Your task to perform on an android device: Open the map Image 0: 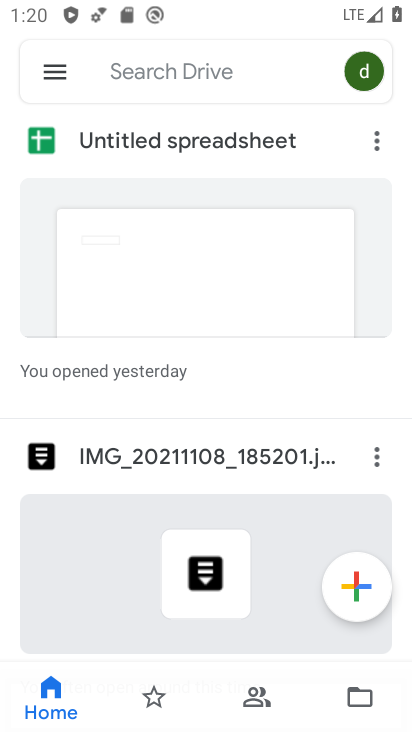
Step 0: press home button
Your task to perform on an android device: Open the map Image 1: 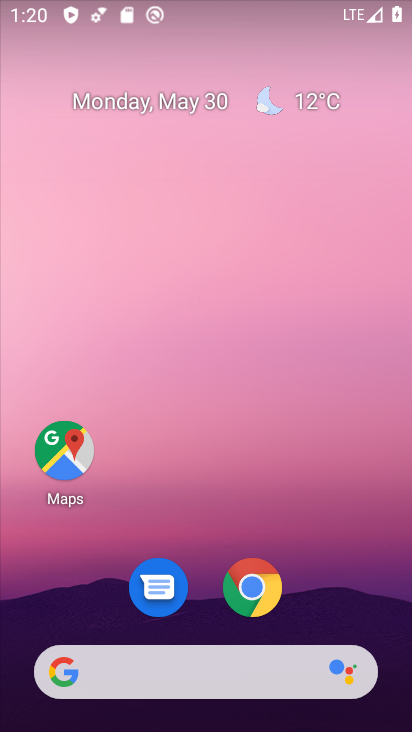
Step 1: click (81, 456)
Your task to perform on an android device: Open the map Image 2: 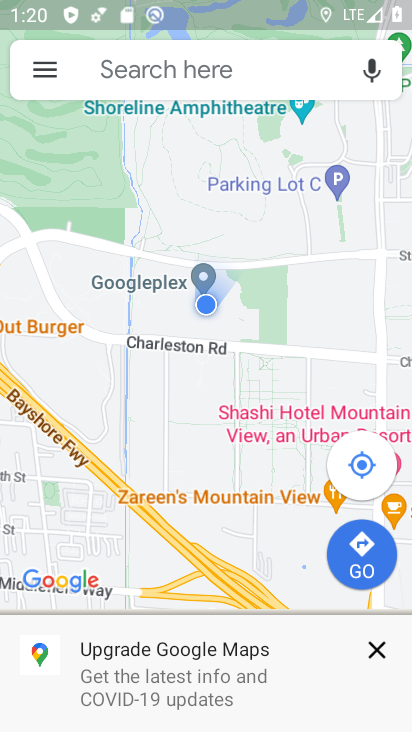
Step 2: task complete